Your task to perform on an android device: Open CNN.com Image 0: 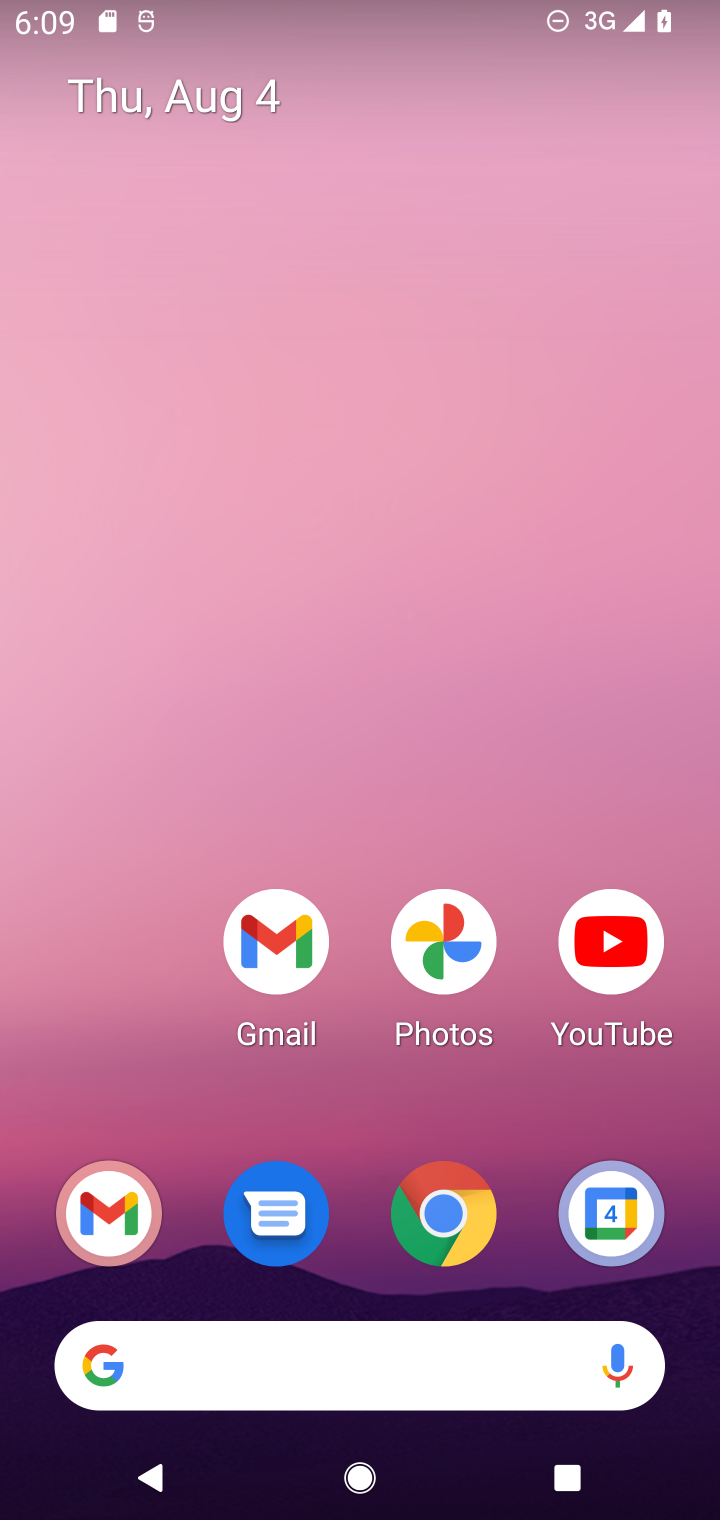
Step 0: drag from (180, 1135) to (143, 257)
Your task to perform on an android device: Open CNN.com Image 1: 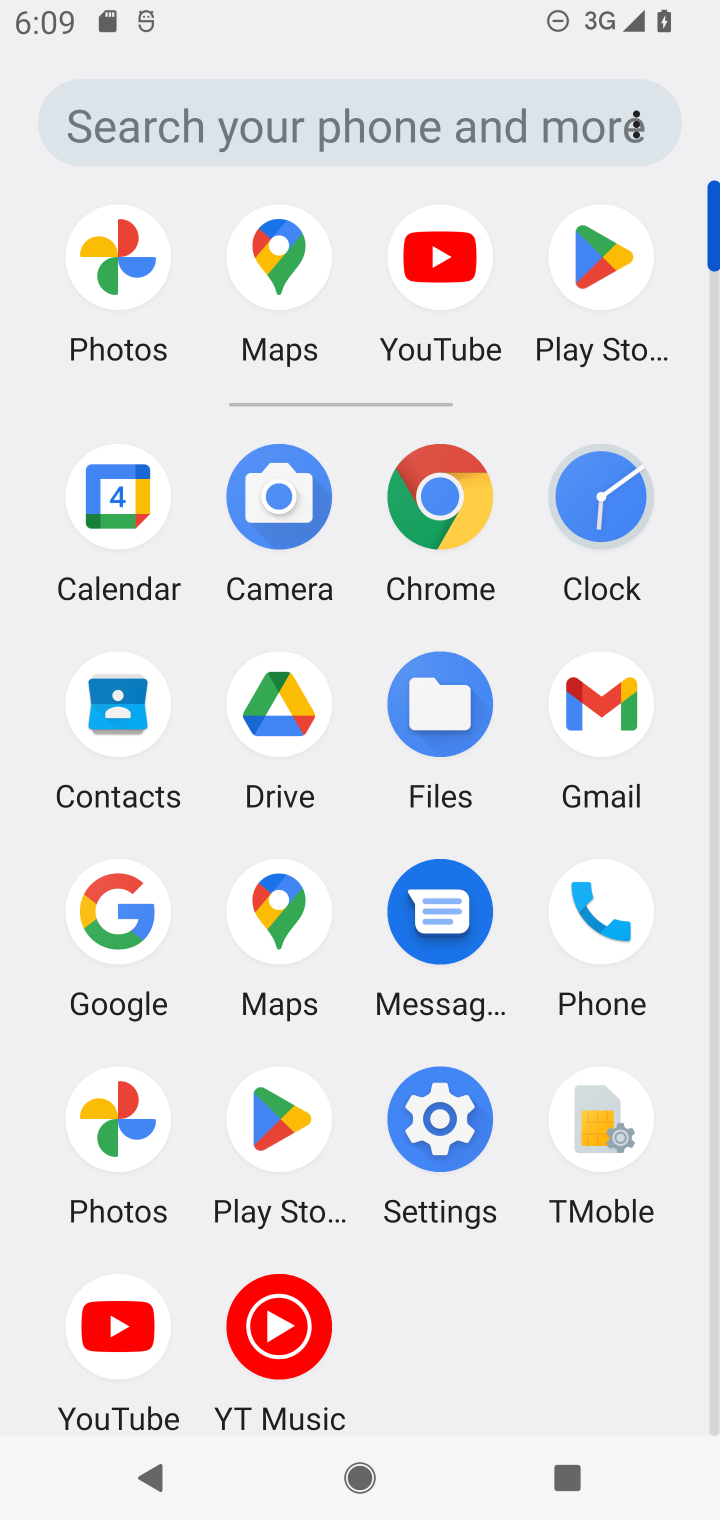
Step 1: click (442, 509)
Your task to perform on an android device: Open CNN.com Image 2: 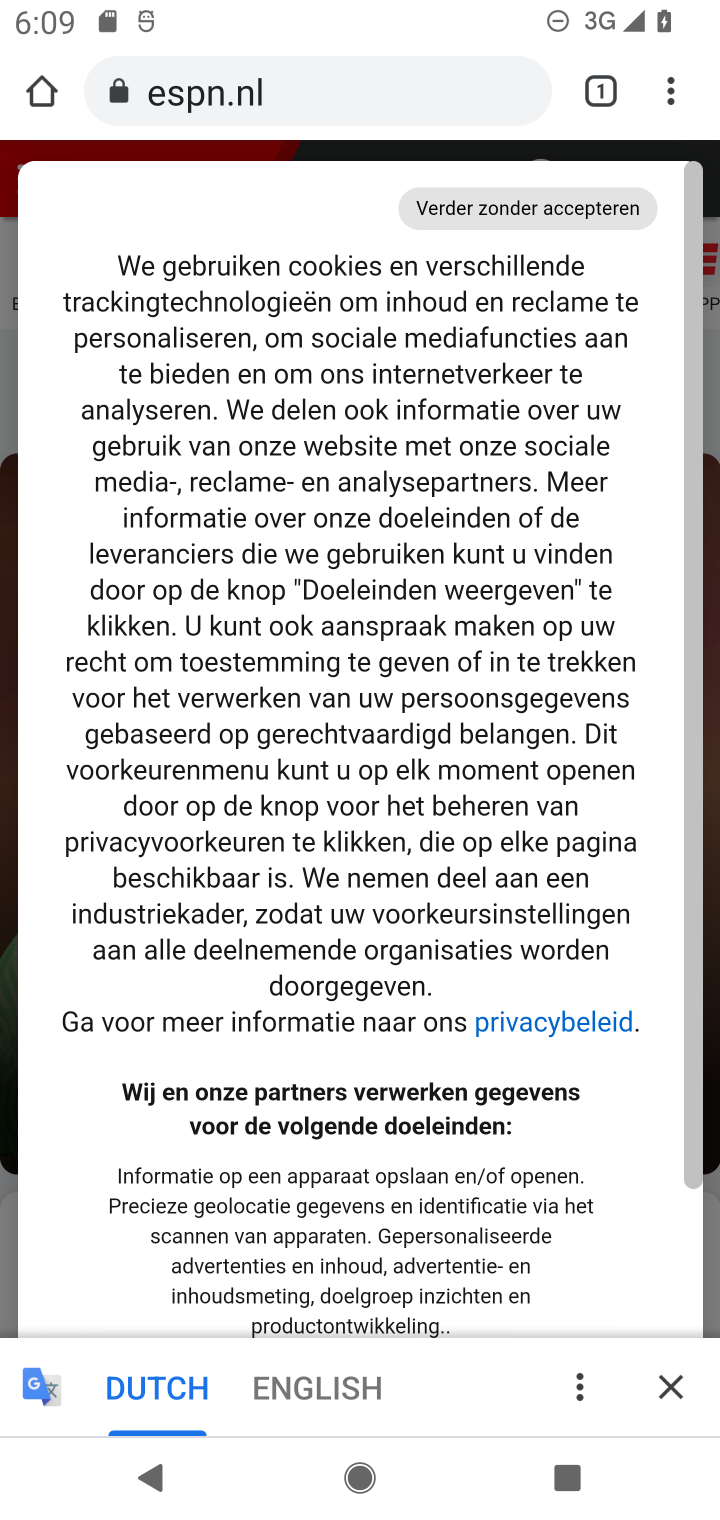
Step 2: click (383, 91)
Your task to perform on an android device: Open CNN.com Image 3: 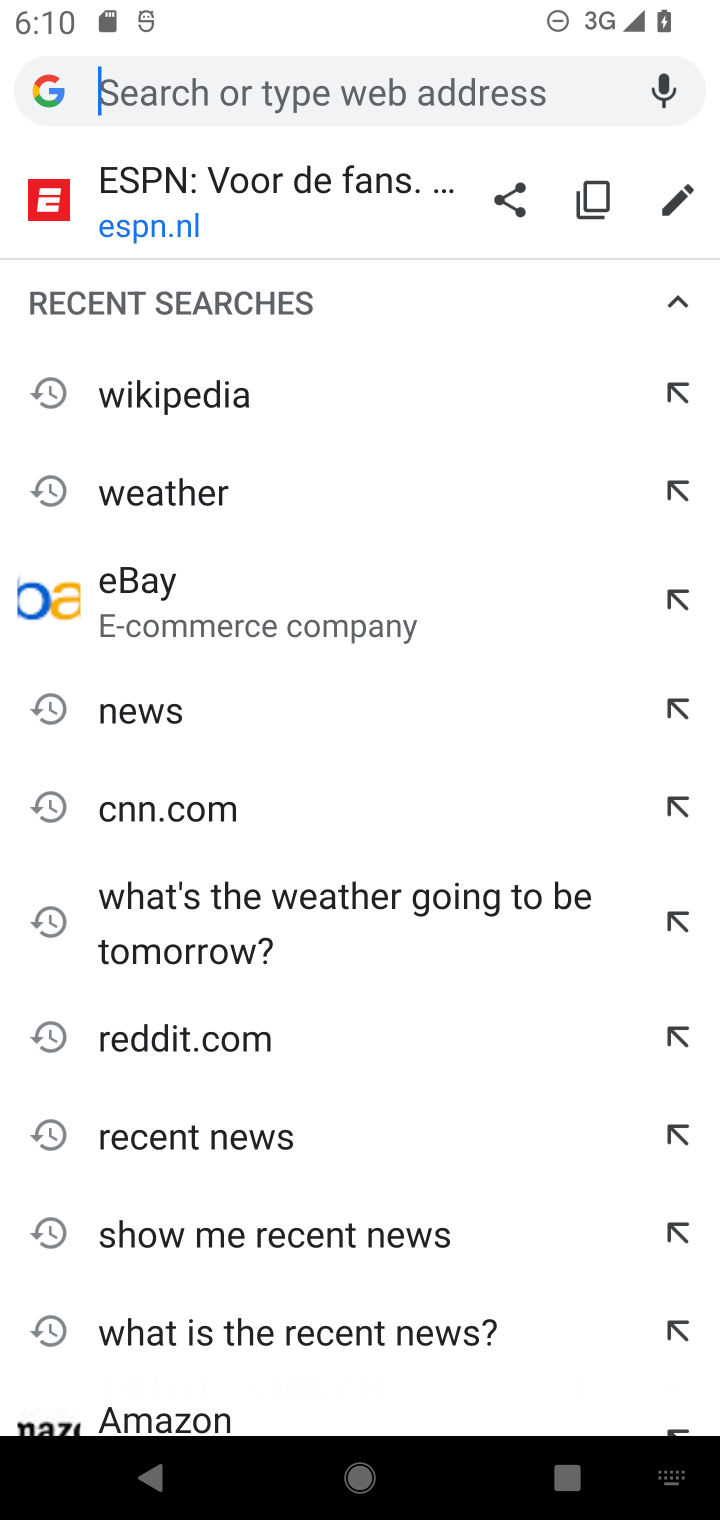
Step 3: type "cnn.com"
Your task to perform on an android device: Open CNN.com Image 4: 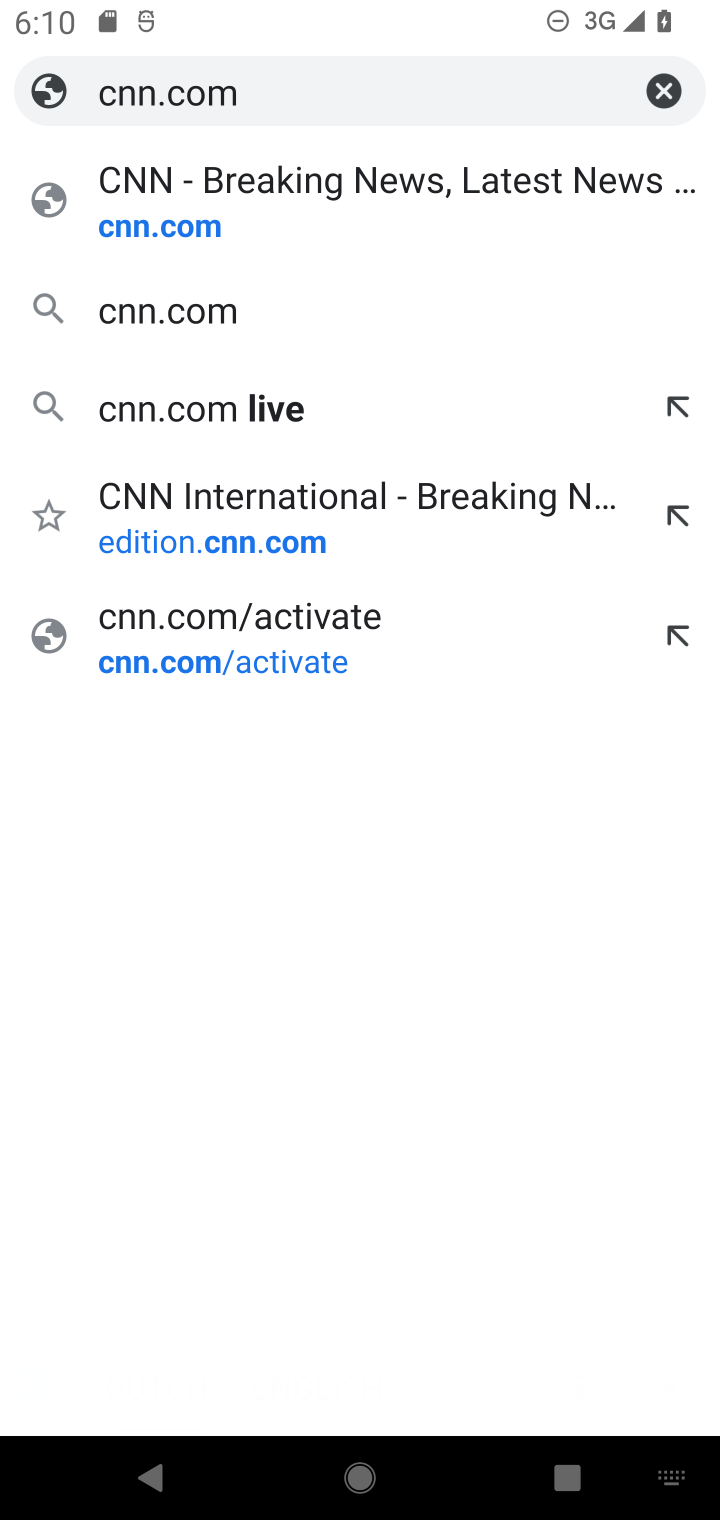
Step 4: click (397, 187)
Your task to perform on an android device: Open CNN.com Image 5: 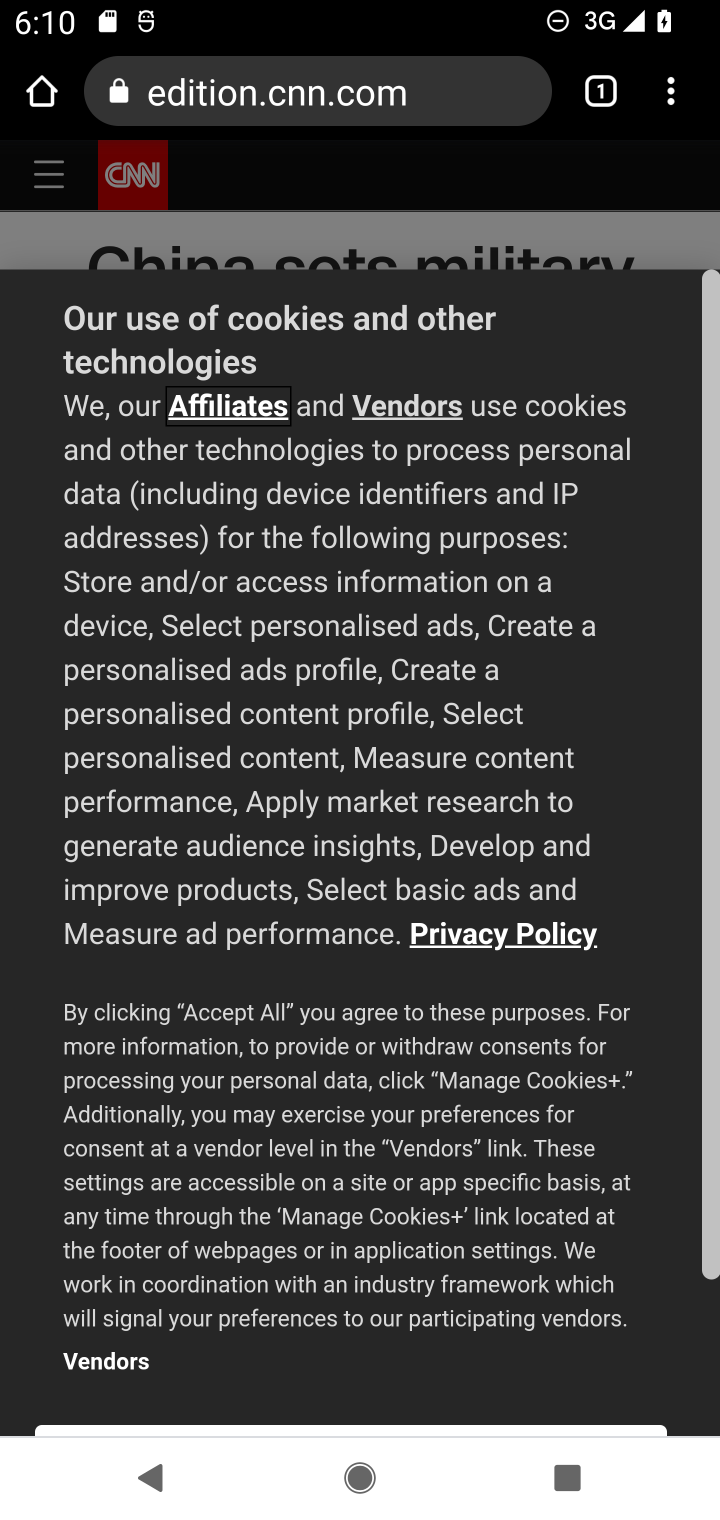
Step 5: task complete